Your task to perform on an android device: toggle improve location accuracy Image 0: 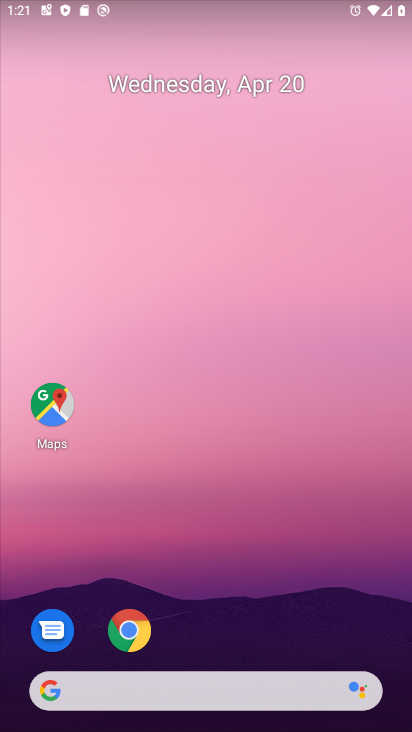
Step 0: drag from (177, 634) to (53, 134)
Your task to perform on an android device: toggle improve location accuracy Image 1: 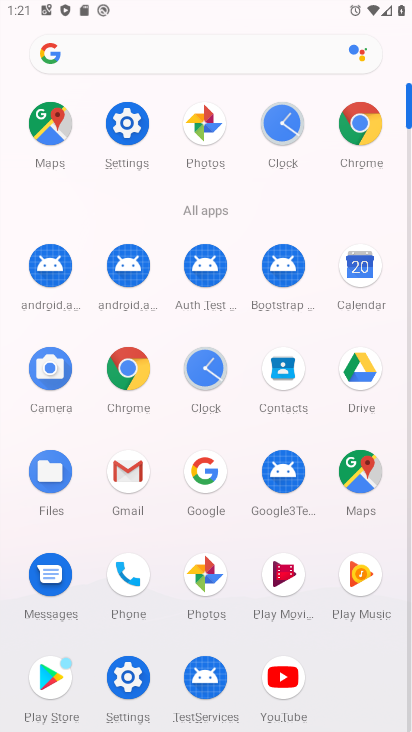
Step 1: click (134, 126)
Your task to perform on an android device: toggle improve location accuracy Image 2: 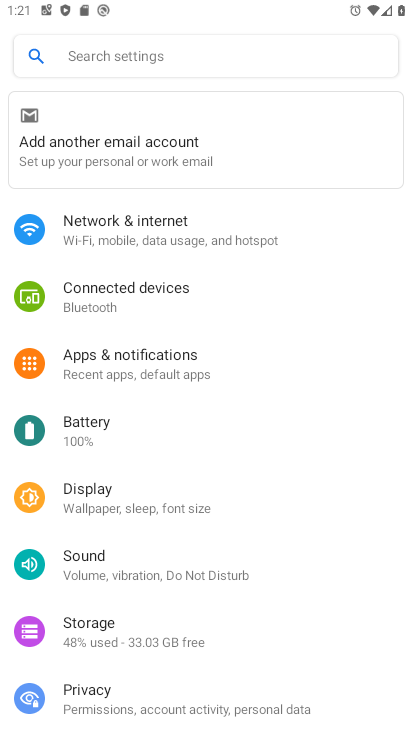
Step 2: drag from (116, 648) to (142, 225)
Your task to perform on an android device: toggle improve location accuracy Image 3: 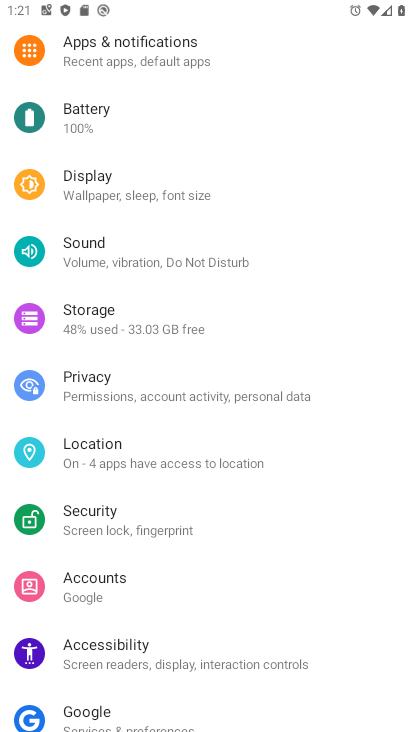
Step 3: click (119, 452)
Your task to perform on an android device: toggle improve location accuracy Image 4: 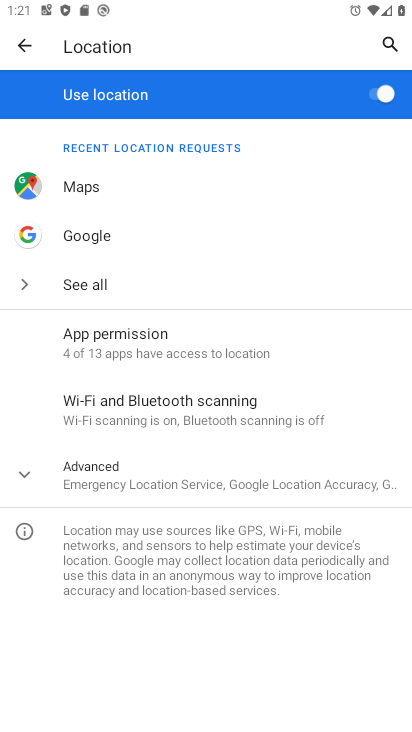
Step 4: click (20, 472)
Your task to perform on an android device: toggle improve location accuracy Image 5: 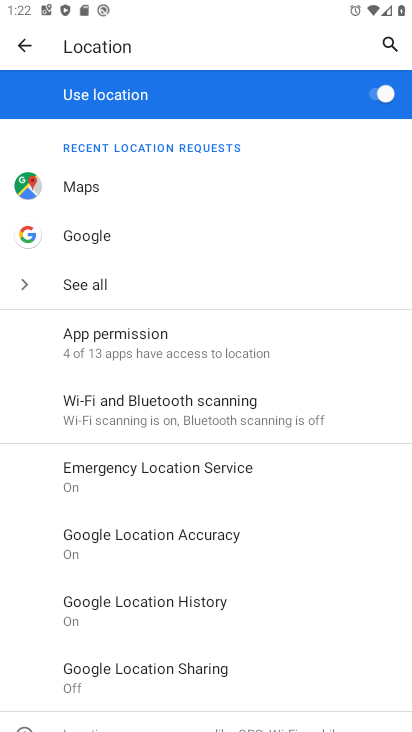
Step 5: click (149, 533)
Your task to perform on an android device: toggle improve location accuracy Image 6: 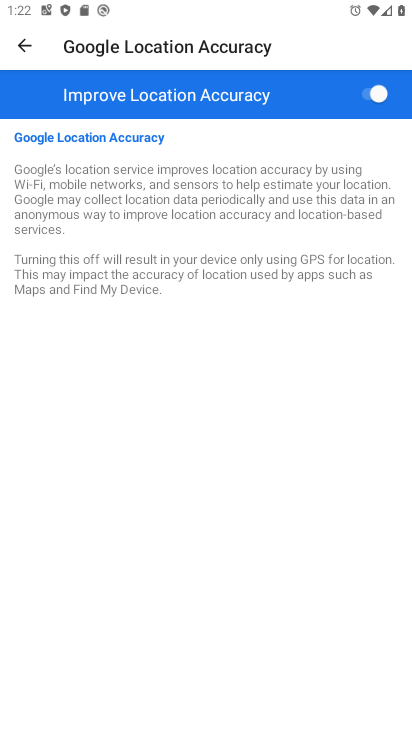
Step 6: click (369, 97)
Your task to perform on an android device: toggle improve location accuracy Image 7: 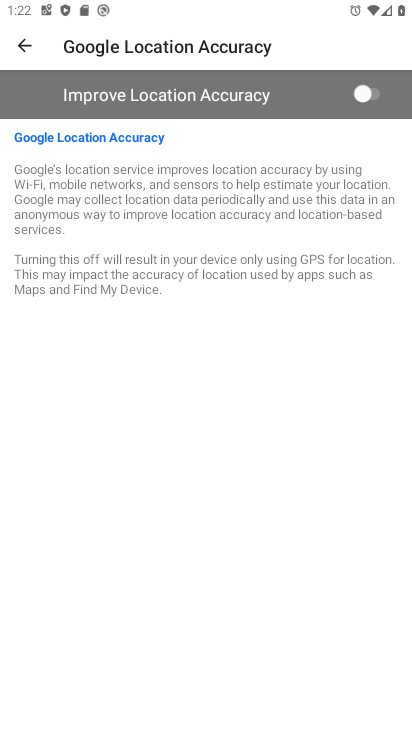
Step 7: task complete